Your task to perform on an android device: open the mobile data screen to see how much data has been used Image 0: 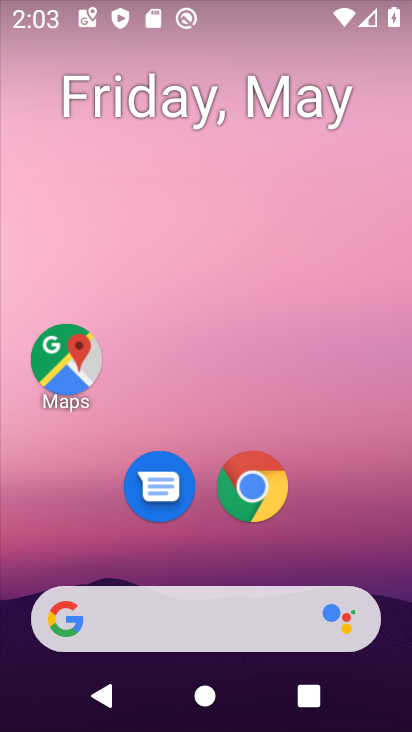
Step 0: drag from (388, 601) to (363, 200)
Your task to perform on an android device: open the mobile data screen to see how much data has been used Image 1: 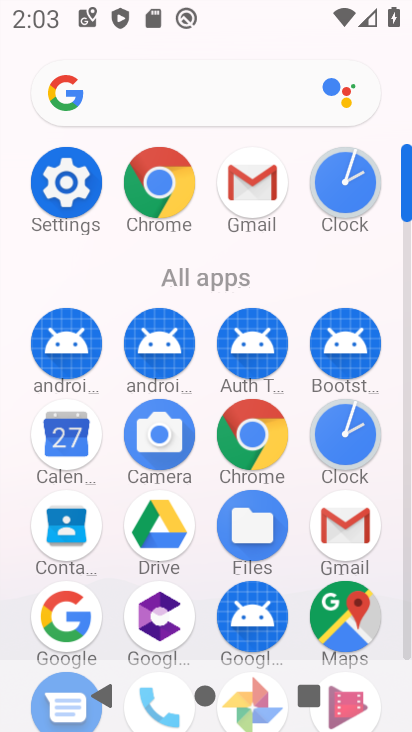
Step 1: click (56, 186)
Your task to perform on an android device: open the mobile data screen to see how much data has been used Image 2: 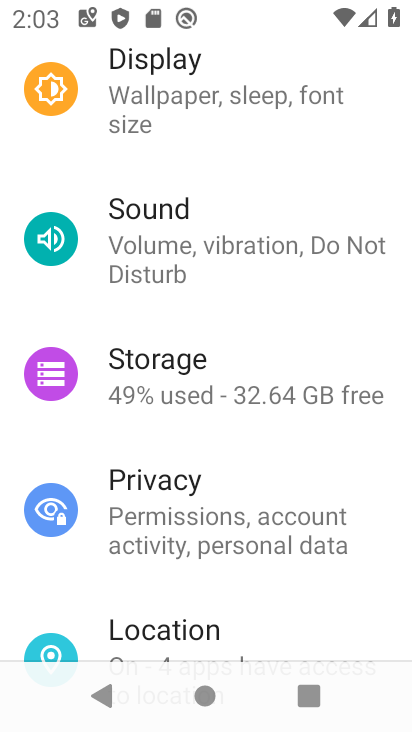
Step 2: drag from (278, 59) to (343, 484)
Your task to perform on an android device: open the mobile data screen to see how much data has been used Image 3: 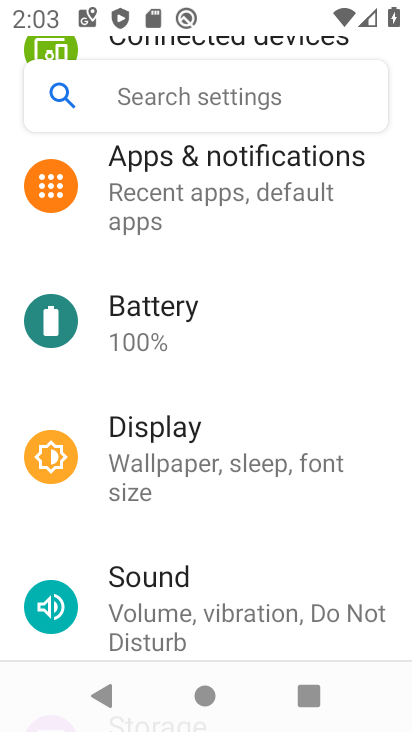
Step 3: drag from (357, 206) to (382, 622)
Your task to perform on an android device: open the mobile data screen to see how much data has been used Image 4: 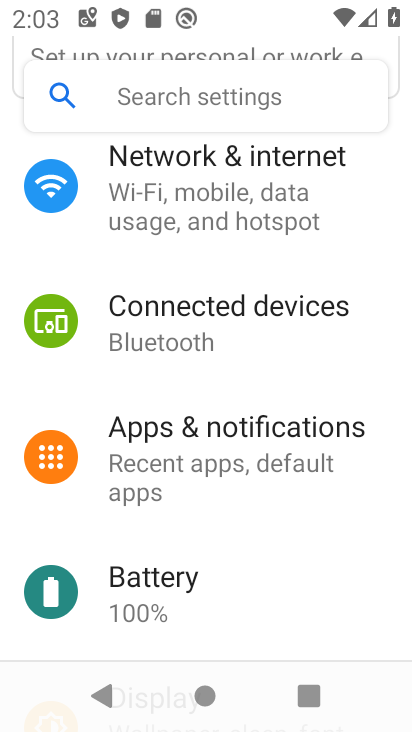
Step 4: drag from (358, 197) to (356, 651)
Your task to perform on an android device: open the mobile data screen to see how much data has been used Image 5: 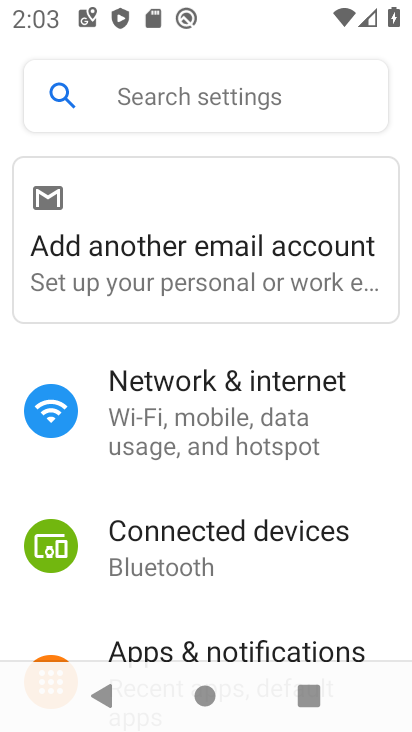
Step 5: click (151, 421)
Your task to perform on an android device: open the mobile data screen to see how much data has been used Image 6: 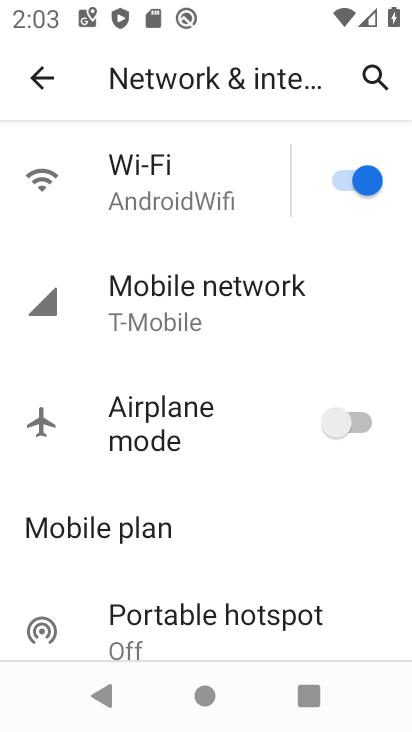
Step 6: click (172, 292)
Your task to perform on an android device: open the mobile data screen to see how much data has been used Image 7: 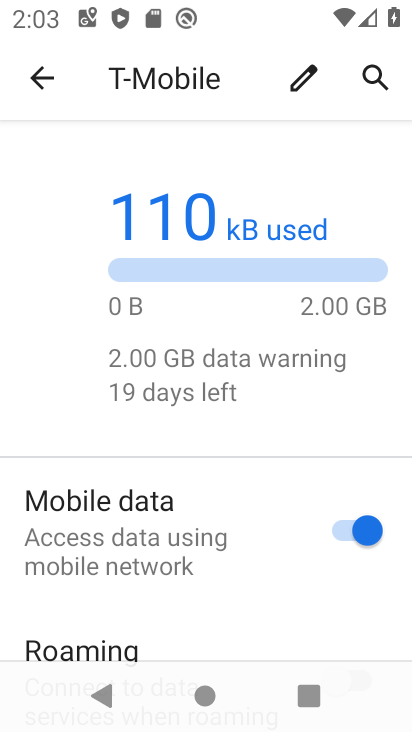
Step 7: click (180, 287)
Your task to perform on an android device: open the mobile data screen to see how much data has been used Image 8: 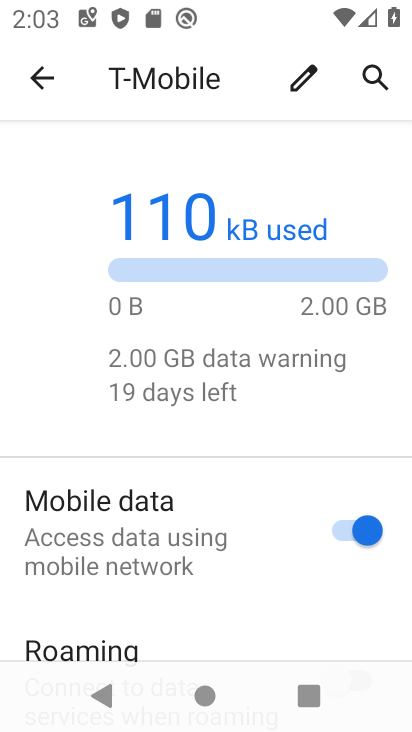
Step 8: task complete